Your task to perform on an android device: Do I have any events this weekend? Image 0: 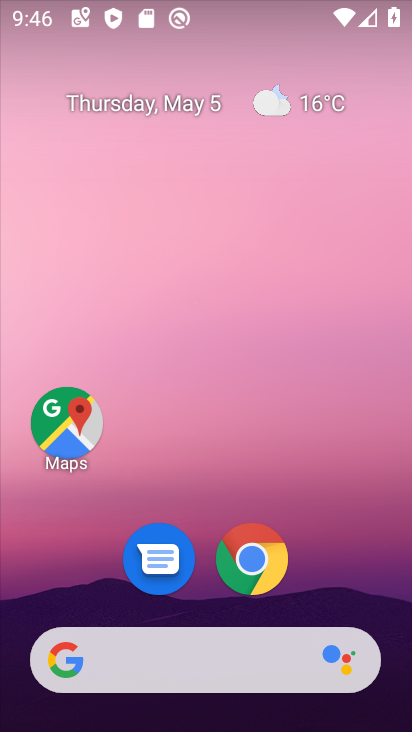
Step 0: drag from (188, 613) to (166, 33)
Your task to perform on an android device: Do I have any events this weekend? Image 1: 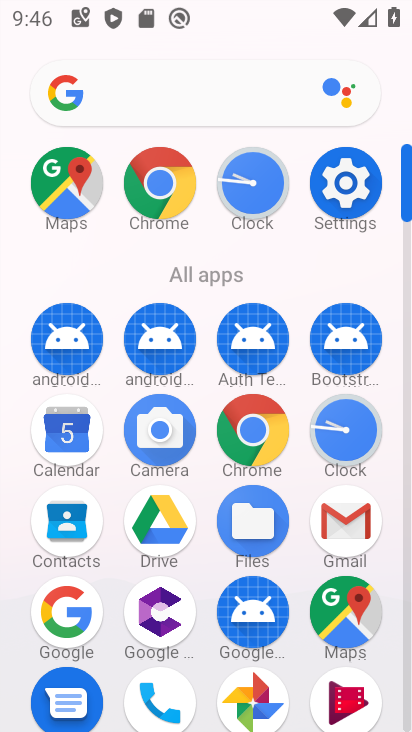
Step 1: click (49, 445)
Your task to perform on an android device: Do I have any events this weekend? Image 2: 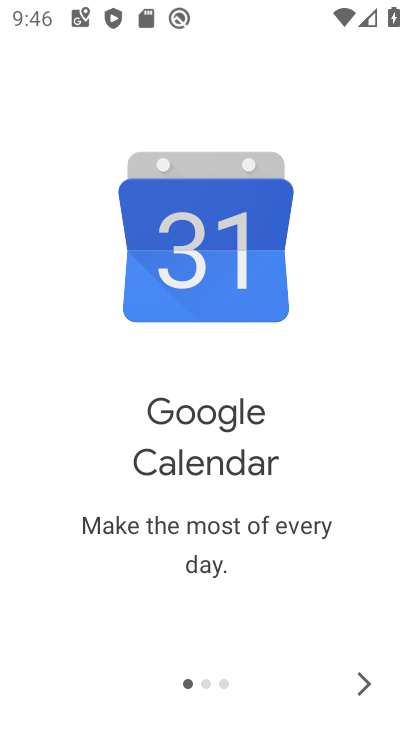
Step 2: click (375, 683)
Your task to perform on an android device: Do I have any events this weekend? Image 3: 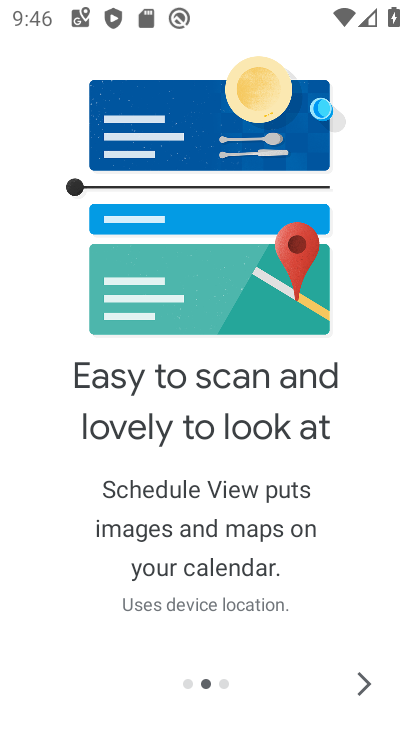
Step 3: click (370, 684)
Your task to perform on an android device: Do I have any events this weekend? Image 4: 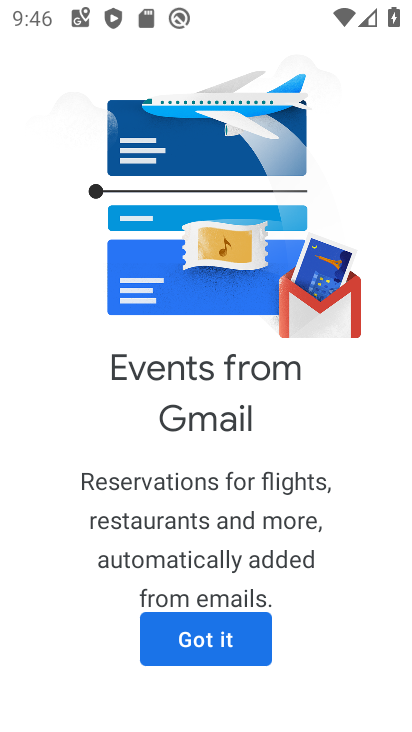
Step 4: click (255, 651)
Your task to perform on an android device: Do I have any events this weekend? Image 5: 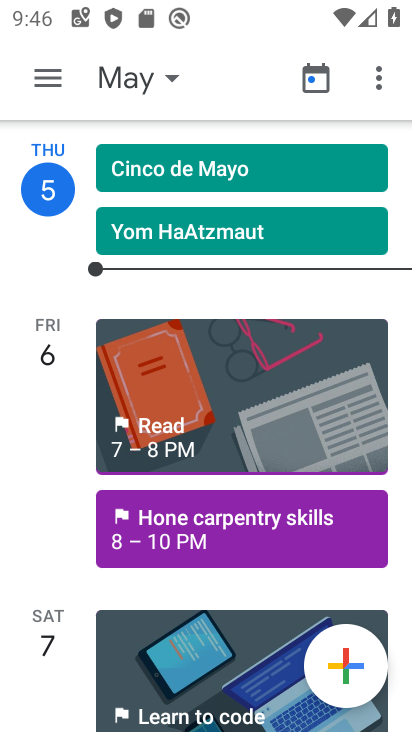
Step 5: click (61, 73)
Your task to perform on an android device: Do I have any events this weekend? Image 6: 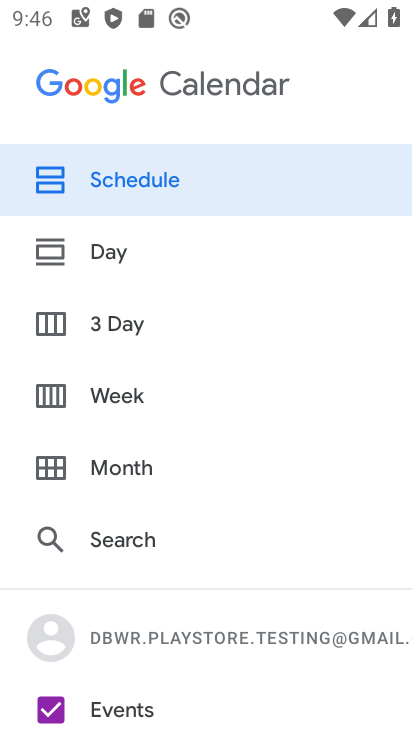
Step 6: drag from (165, 636) to (231, 146)
Your task to perform on an android device: Do I have any events this weekend? Image 7: 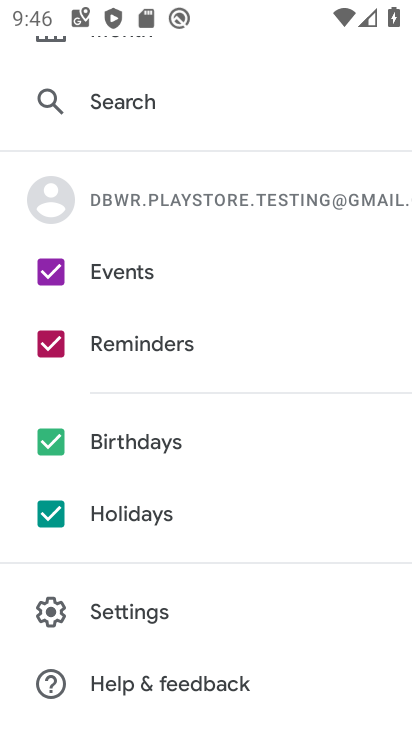
Step 7: click (47, 506)
Your task to perform on an android device: Do I have any events this weekend? Image 8: 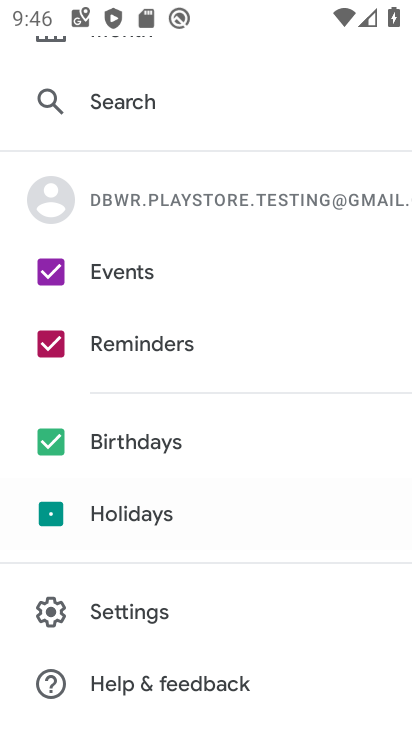
Step 8: click (52, 444)
Your task to perform on an android device: Do I have any events this weekend? Image 9: 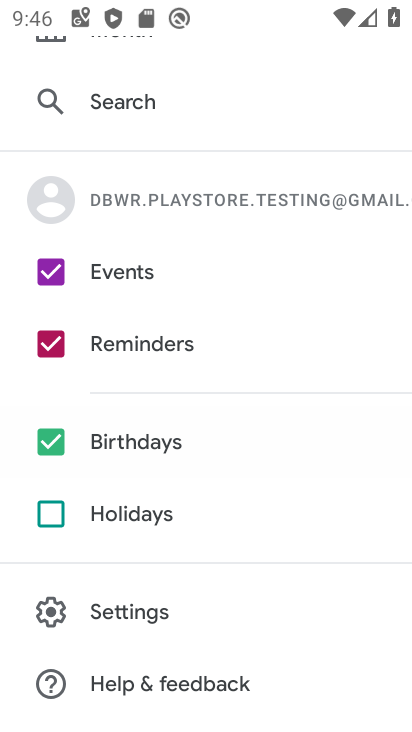
Step 9: click (52, 331)
Your task to perform on an android device: Do I have any events this weekend? Image 10: 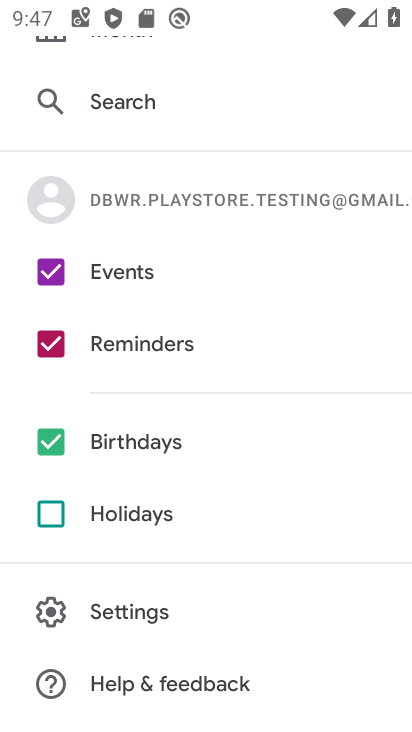
Step 10: click (93, 437)
Your task to perform on an android device: Do I have any events this weekend? Image 11: 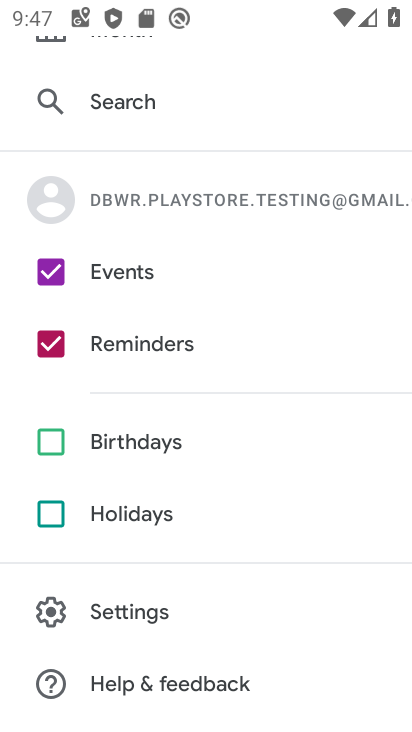
Step 11: click (90, 337)
Your task to perform on an android device: Do I have any events this weekend? Image 12: 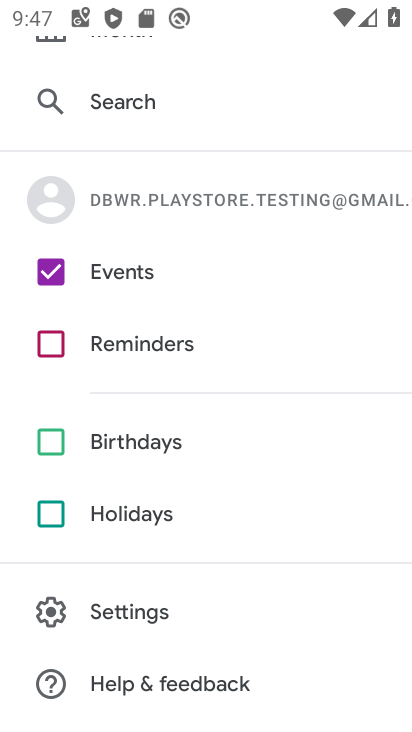
Step 12: drag from (291, 196) to (304, 560)
Your task to perform on an android device: Do I have any events this weekend? Image 13: 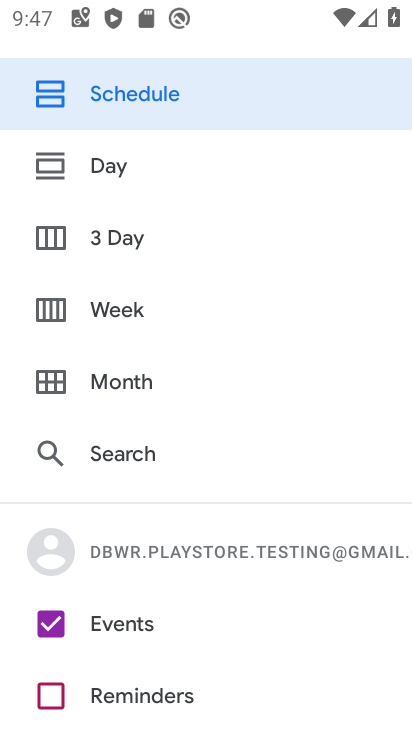
Step 13: click (145, 321)
Your task to perform on an android device: Do I have any events this weekend? Image 14: 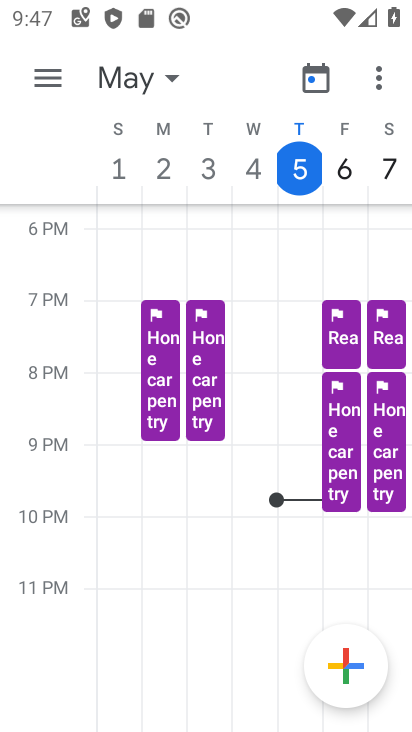
Step 14: task complete